Your task to perform on an android device: When is my next appointment? Image 0: 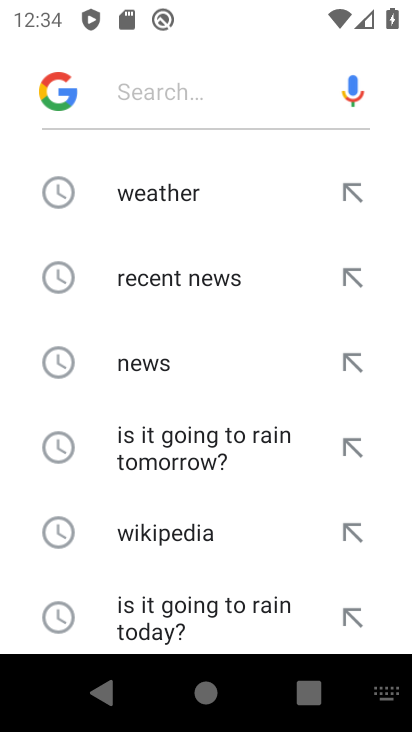
Step 0: press home button
Your task to perform on an android device: When is my next appointment? Image 1: 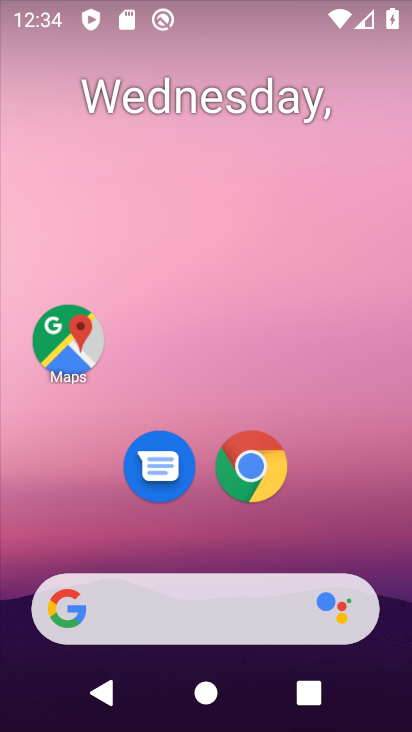
Step 1: drag from (32, 536) to (125, 114)
Your task to perform on an android device: When is my next appointment? Image 2: 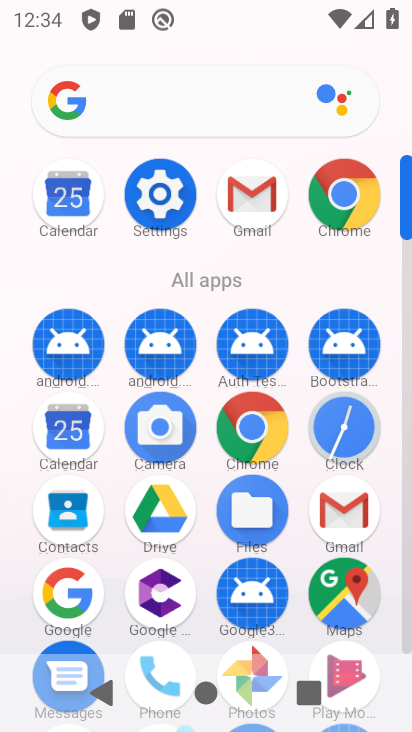
Step 2: click (49, 430)
Your task to perform on an android device: When is my next appointment? Image 3: 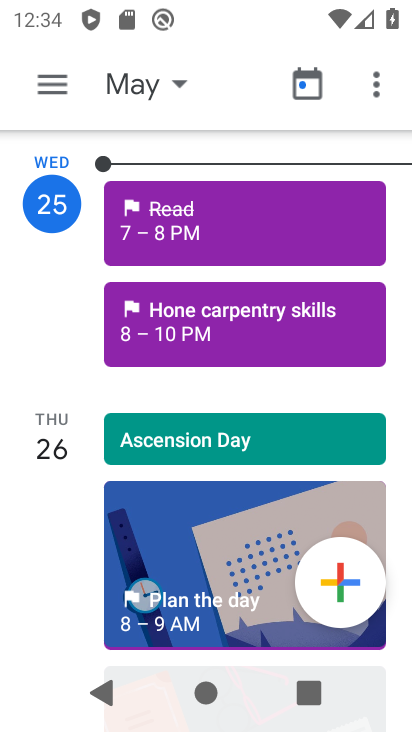
Step 3: task complete